Your task to perform on an android device: empty trash in the gmail app Image 0: 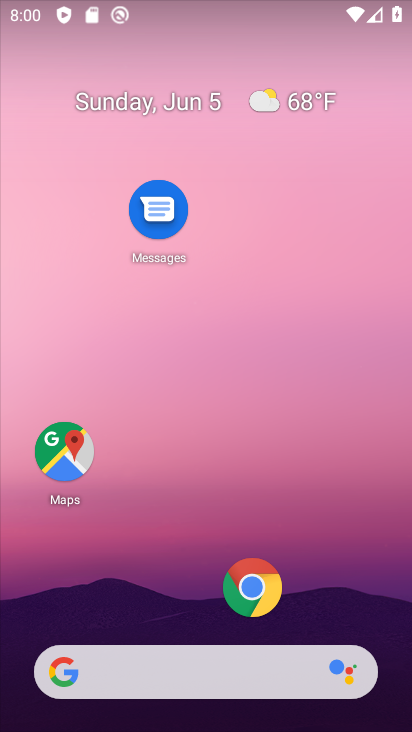
Step 0: press home button
Your task to perform on an android device: empty trash in the gmail app Image 1: 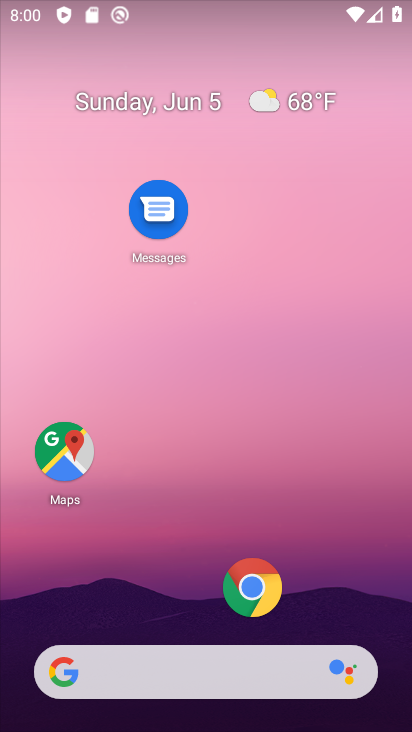
Step 1: drag from (326, 624) to (340, 19)
Your task to perform on an android device: empty trash in the gmail app Image 2: 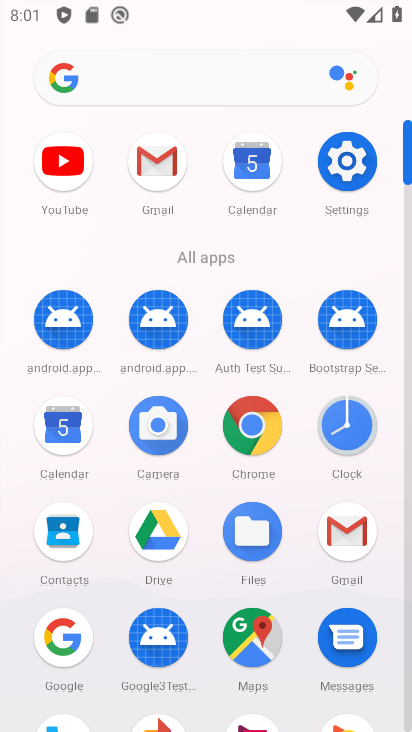
Step 2: click (344, 524)
Your task to perform on an android device: empty trash in the gmail app Image 3: 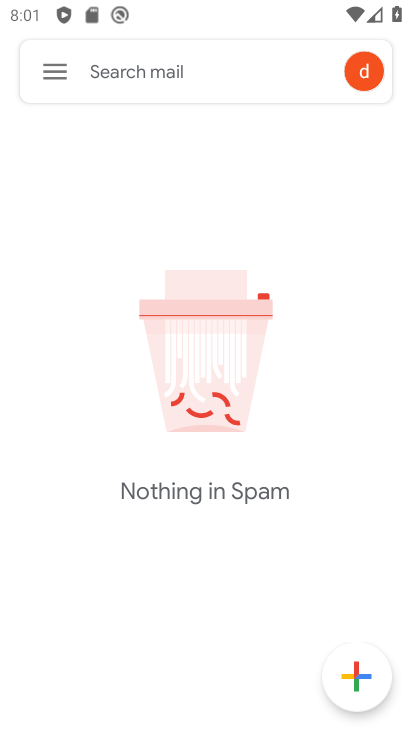
Step 3: click (42, 68)
Your task to perform on an android device: empty trash in the gmail app Image 4: 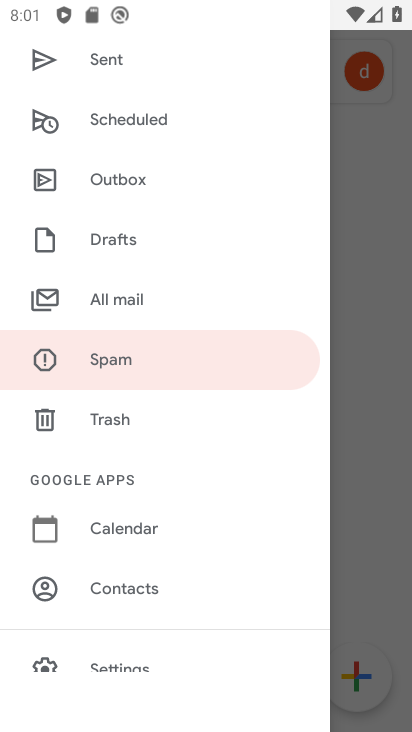
Step 4: click (80, 415)
Your task to perform on an android device: empty trash in the gmail app Image 5: 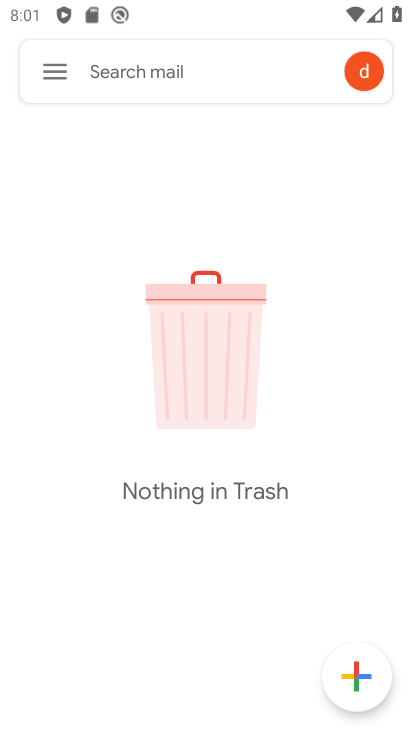
Step 5: task complete